Your task to perform on an android device: check google app version Image 0: 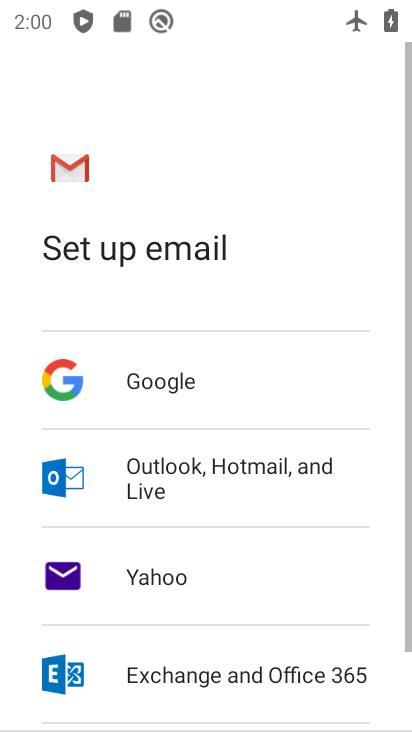
Step 0: press home button
Your task to perform on an android device: check google app version Image 1: 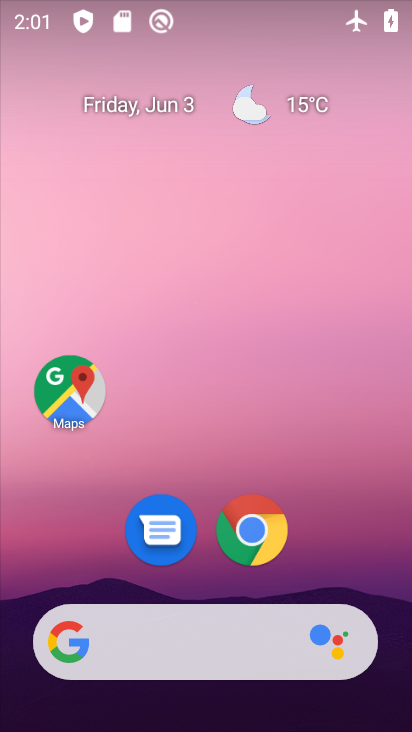
Step 1: click (68, 662)
Your task to perform on an android device: check google app version Image 2: 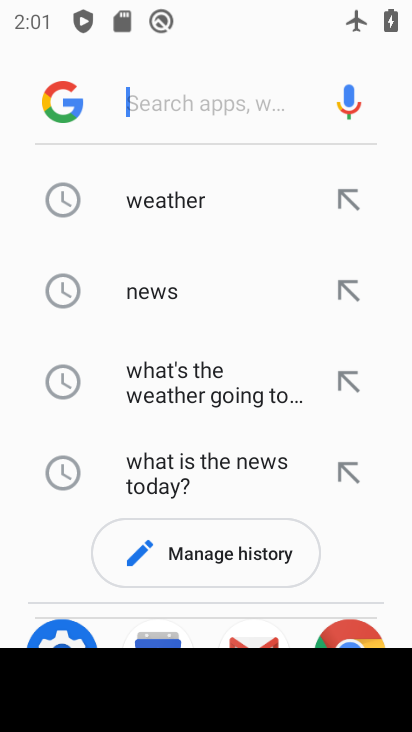
Step 2: click (69, 112)
Your task to perform on an android device: check google app version Image 3: 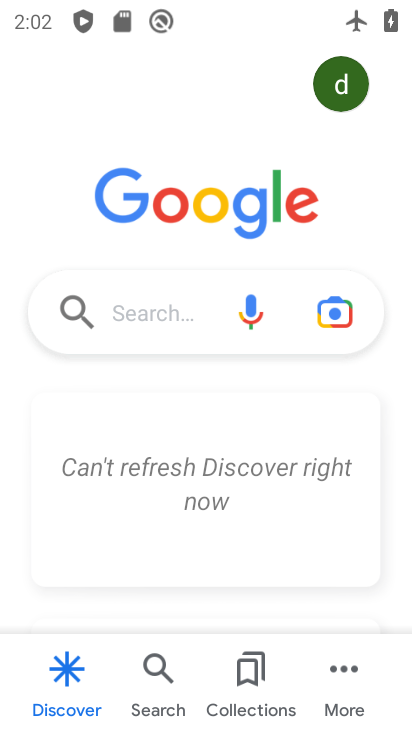
Step 3: click (334, 701)
Your task to perform on an android device: check google app version Image 4: 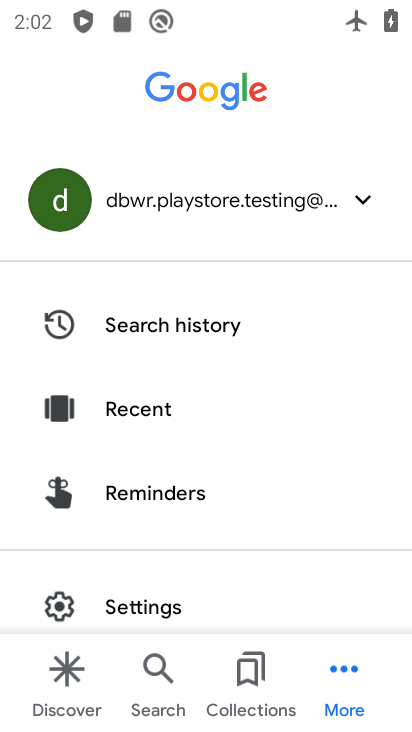
Step 4: click (161, 594)
Your task to perform on an android device: check google app version Image 5: 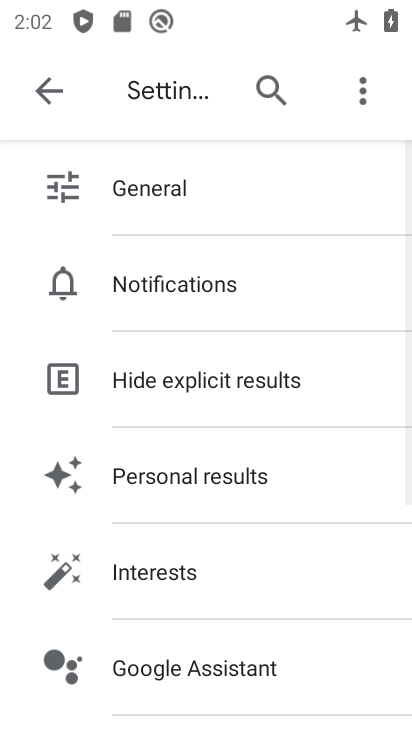
Step 5: drag from (185, 630) to (199, 359)
Your task to perform on an android device: check google app version Image 6: 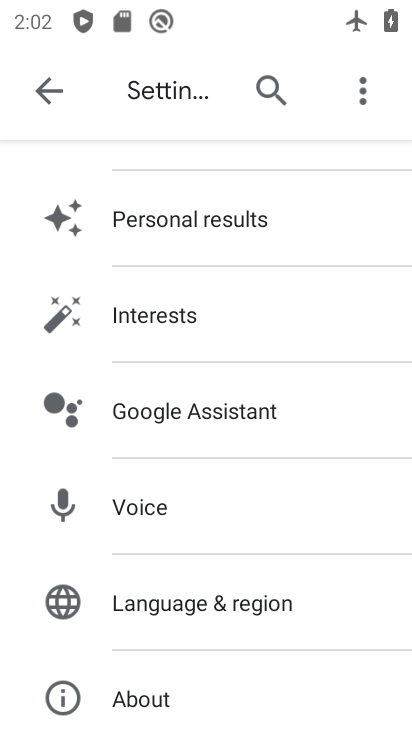
Step 6: click (159, 691)
Your task to perform on an android device: check google app version Image 7: 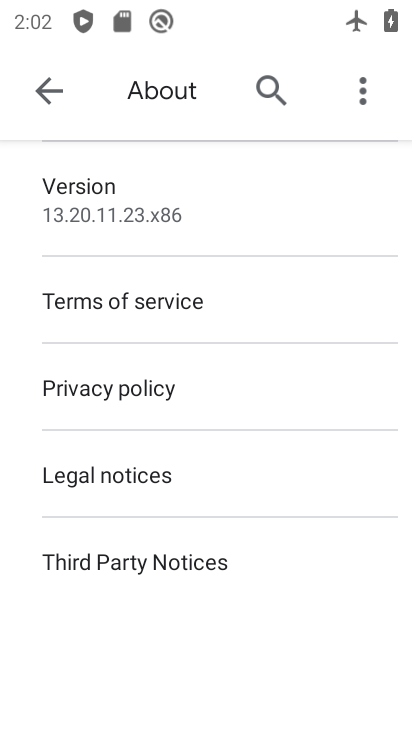
Step 7: task complete